Your task to perform on an android device: Search for pizza restaurants on Maps Image 0: 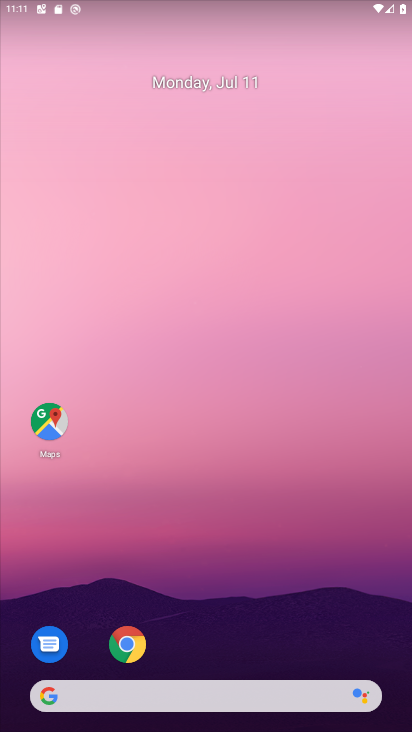
Step 0: click (57, 410)
Your task to perform on an android device: Search for pizza restaurants on Maps Image 1: 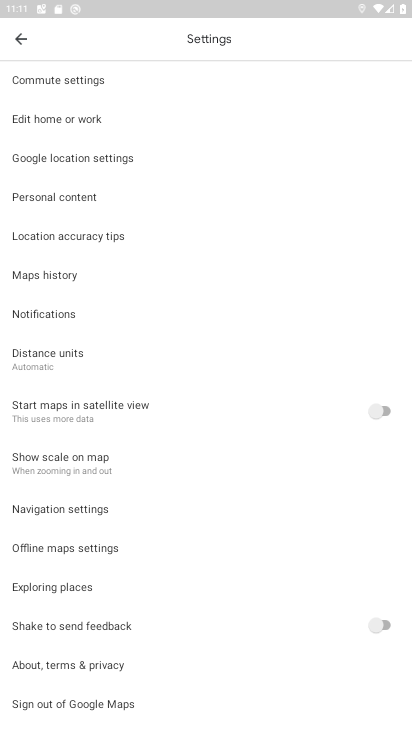
Step 1: click (21, 32)
Your task to perform on an android device: Search for pizza restaurants on Maps Image 2: 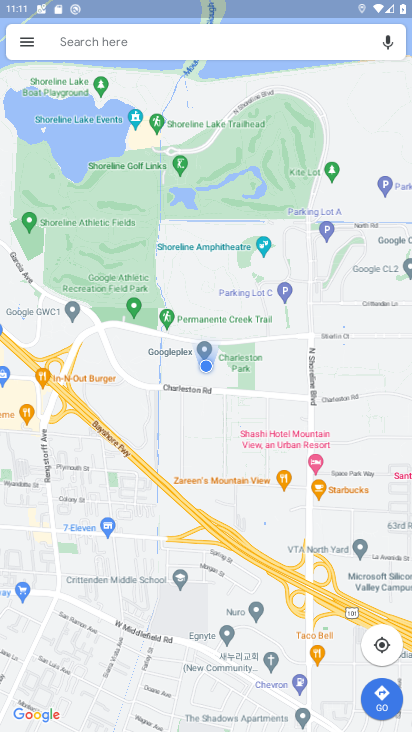
Step 2: click (124, 46)
Your task to perform on an android device: Search for pizza restaurants on Maps Image 3: 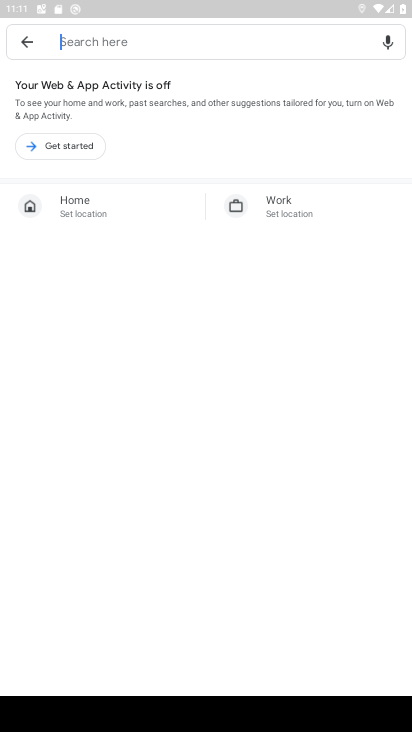
Step 3: type "pizza restaurants"
Your task to perform on an android device: Search for pizza restaurants on Maps Image 4: 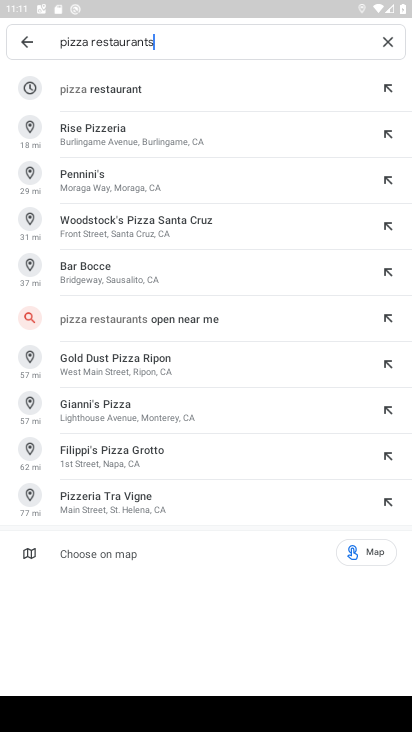
Step 4: click (257, 79)
Your task to perform on an android device: Search for pizza restaurants on Maps Image 5: 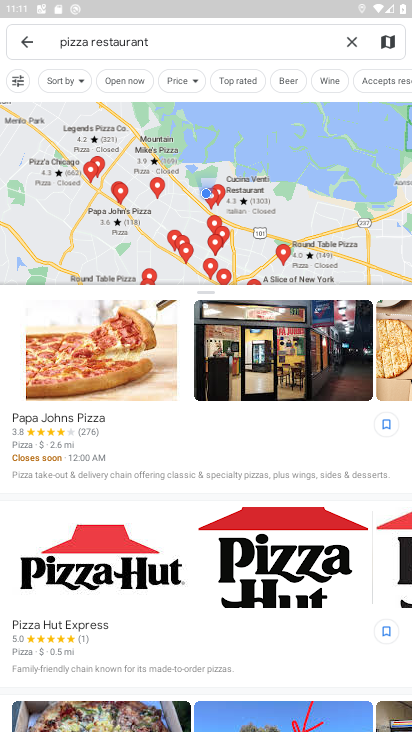
Step 5: task complete